Your task to perform on an android device: Toggle the flashlight Image 0: 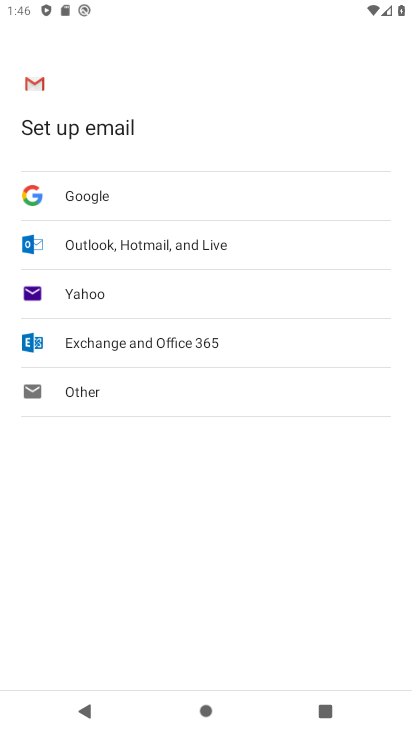
Step 0: press home button
Your task to perform on an android device: Toggle the flashlight Image 1: 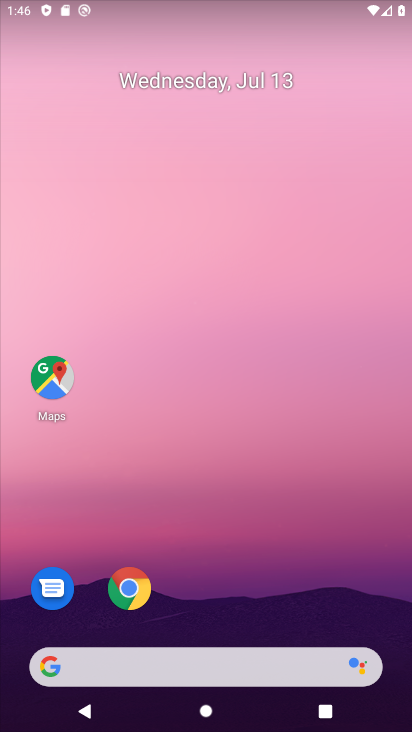
Step 1: task complete